Your task to perform on an android device: open sync settings in chrome Image 0: 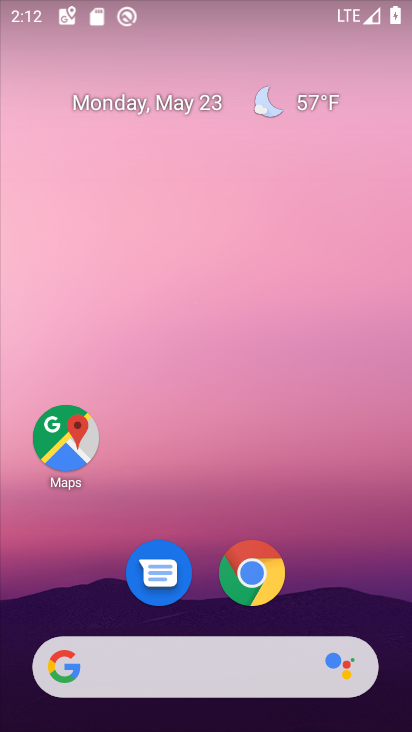
Step 0: click (258, 572)
Your task to perform on an android device: open sync settings in chrome Image 1: 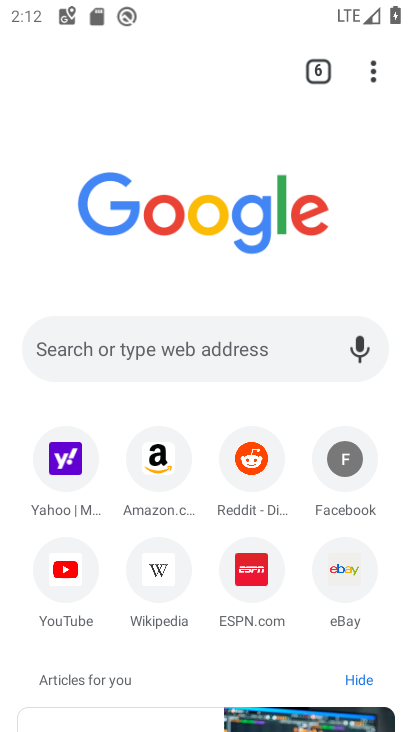
Step 1: click (381, 63)
Your task to perform on an android device: open sync settings in chrome Image 2: 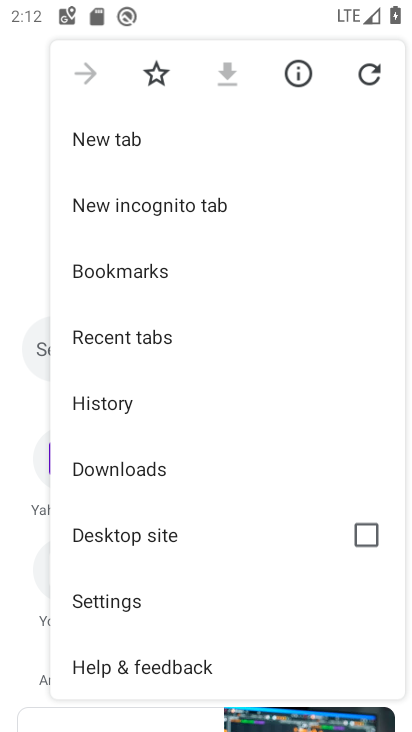
Step 2: click (136, 602)
Your task to perform on an android device: open sync settings in chrome Image 3: 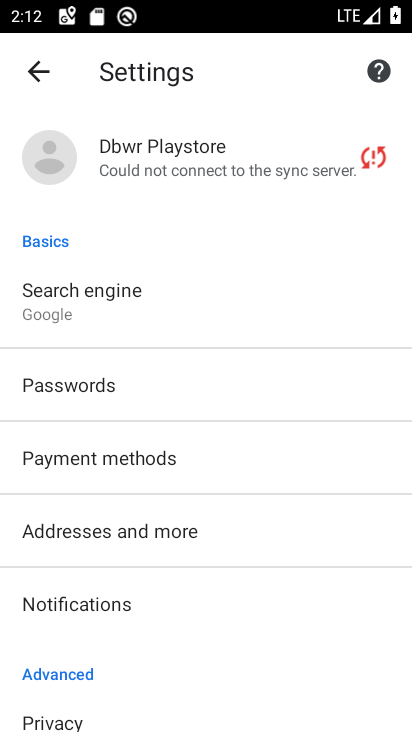
Step 3: click (224, 162)
Your task to perform on an android device: open sync settings in chrome Image 4: 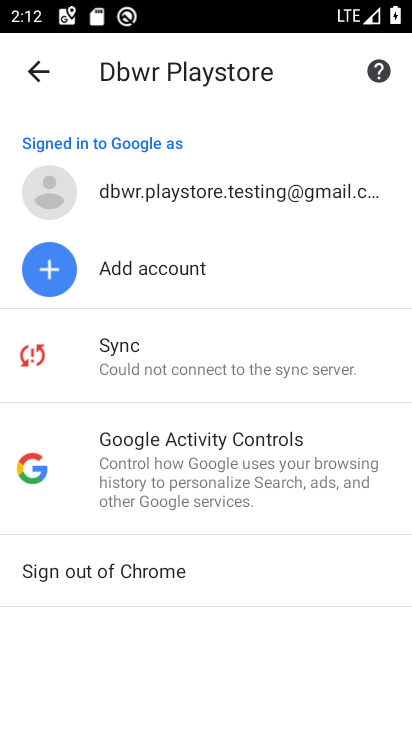
Step 4: click (164, 355)
Your task to perform on an android device: open sync settings in chrome Image 5: 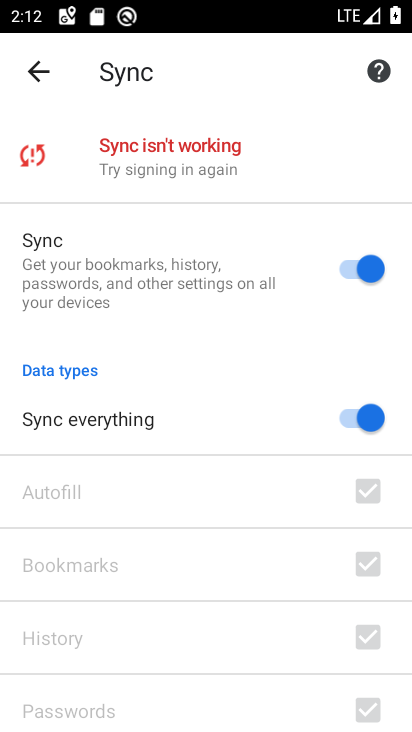
Step 5: task complete